Your task to perform on an android device: change text size in settings app Image 0: 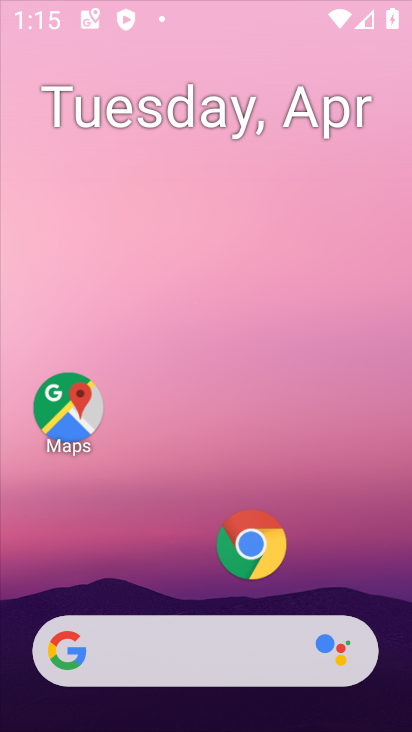
Step 0: click (203, 261)
Your task to perform on an android device: change text size in settings app Image 1: 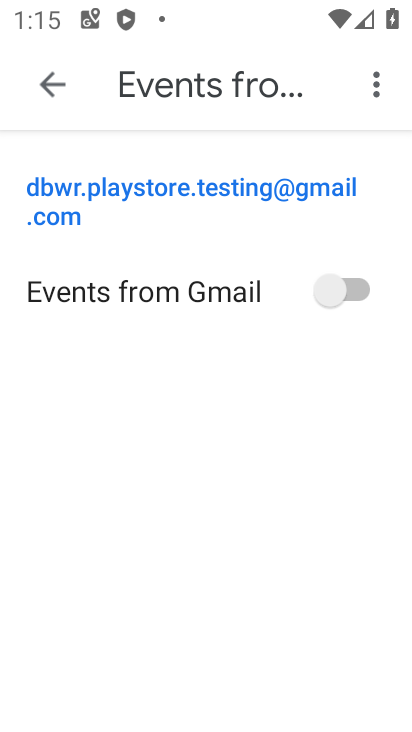
Step 1: press home button
Your task to perform on an android device: change text size in settings app Image 2: 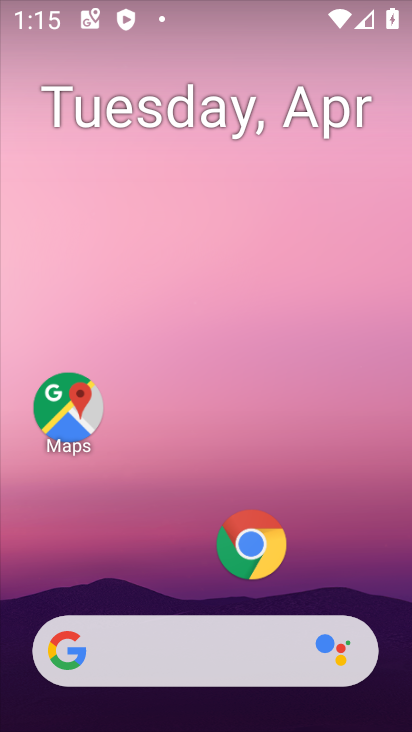
Step 2: drag from (176, 601) to (239, 193)
Your task to perform on an android device: change text size in settings app Image 3: 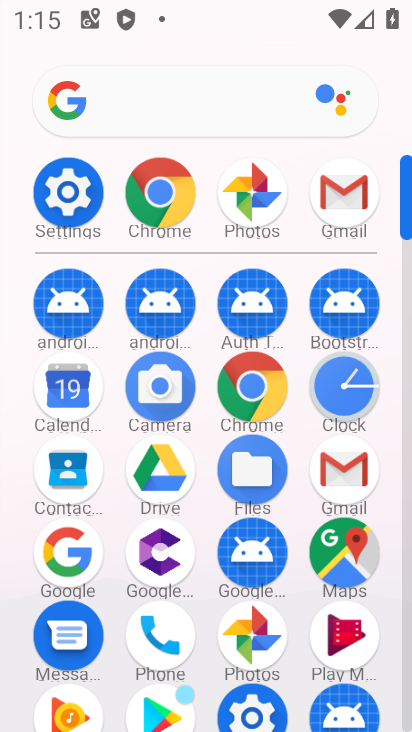
Step 3: click (52, 182)
Your task to perform on an android device: change text size in settings app Image 4: 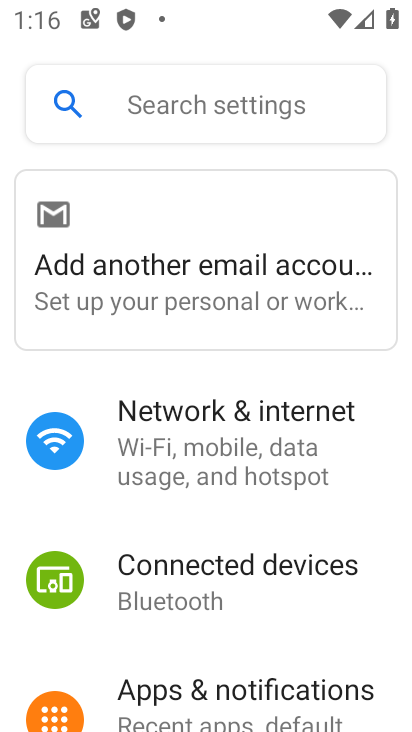
Step 4: drag from (215, 667) to (280, 25)
Your task to perform on an android device: change text size in settings app Image 5: 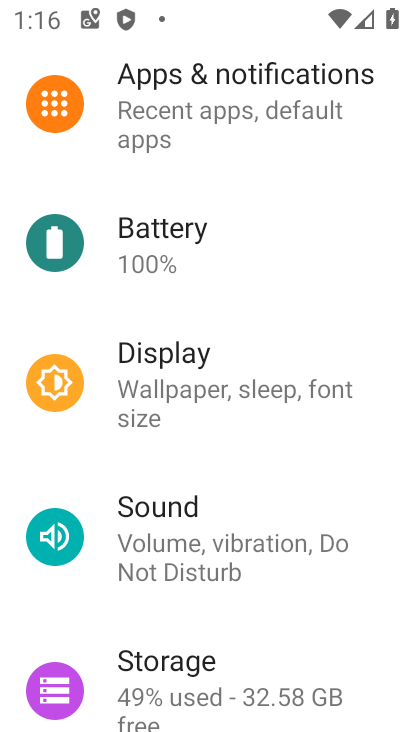
Step 5: drag from (212, 654) to (270, 87)
Your task to perform on an android device: change text size in settings app Image 6: 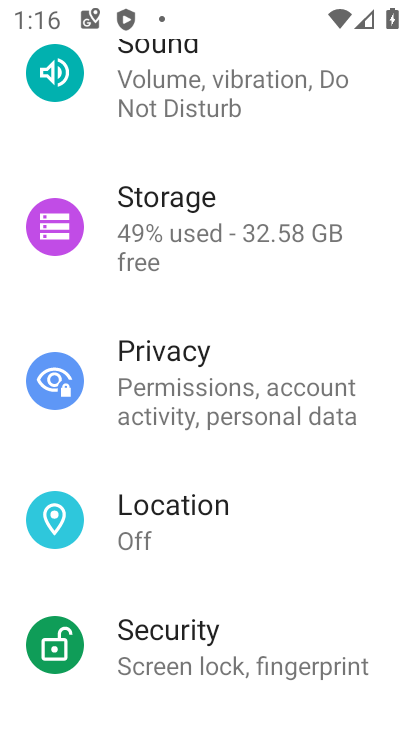
Step 6: drag from (236, 528) to (314, 17)
Your task to perform on an android device: change text size in settings app Image 7: 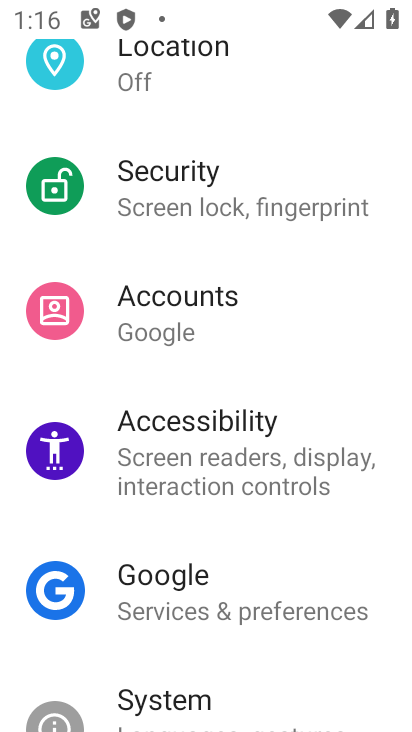
Step 7: drag from (203, 435) to (231, 65)
Your task to perform on an android device: change text size in settings app Image 8: 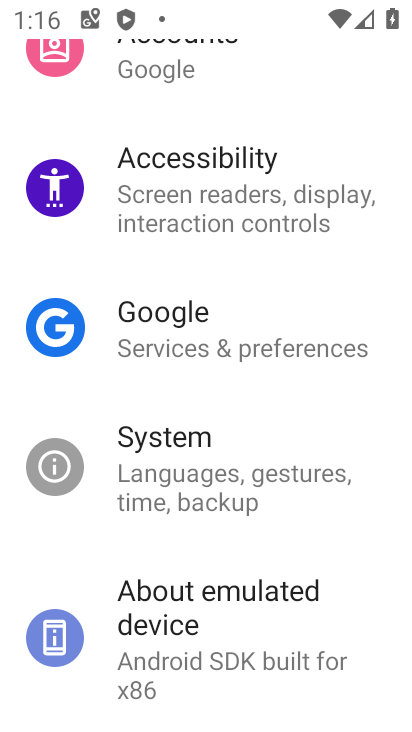
Step 8: click (144, 186)
Your task to perform on an android device: change text size in settings app Image 9: 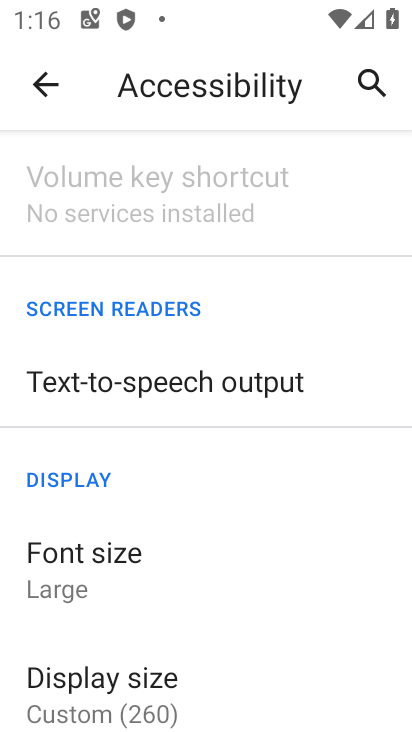
Step 9: click (106, 574)
Your task to perform on an android device: change text size in settings app Image 10: 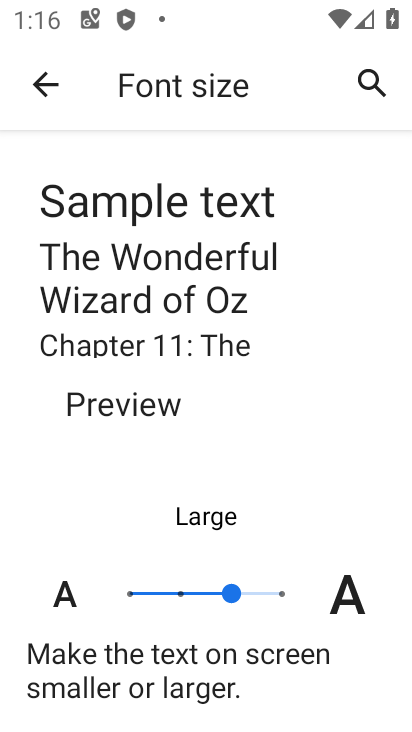
Step 10: click (183, 592)
Your task to perform on an android device: change text size in settings app Image 11: 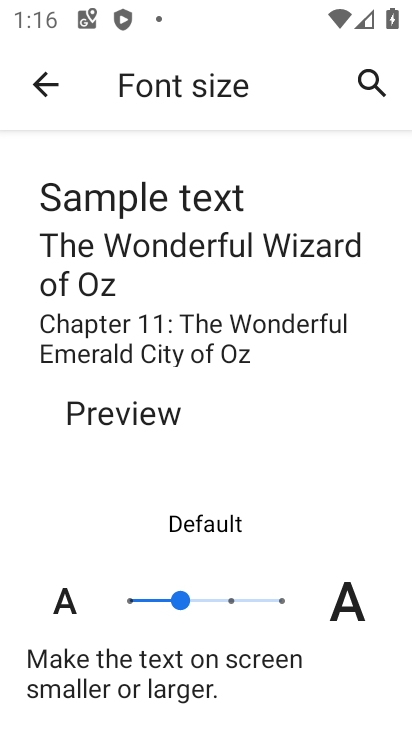
Step 11: task complete